Your task to perform on an android device: Open display settings Image 0: 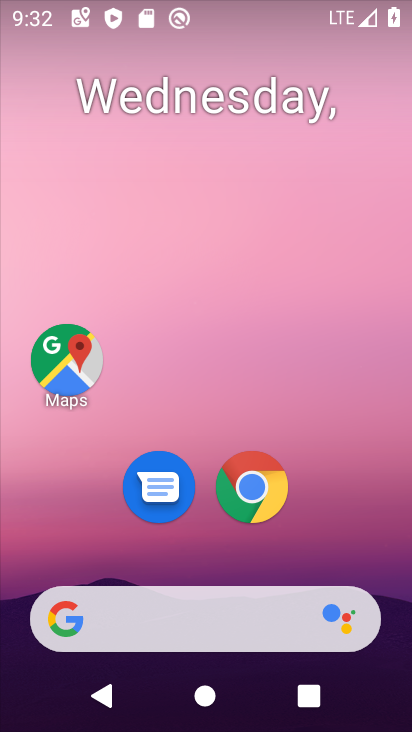
Step 0: drag from (318, 536) to (203, 85)
Your task to perform on an android device: Open display settings Image 1: 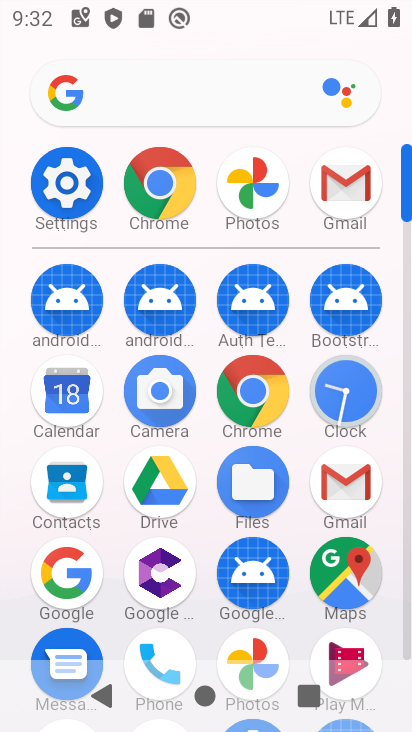
Step 1: click (69, 182)
Your task to perform on an android device: Open display settings Image 2: 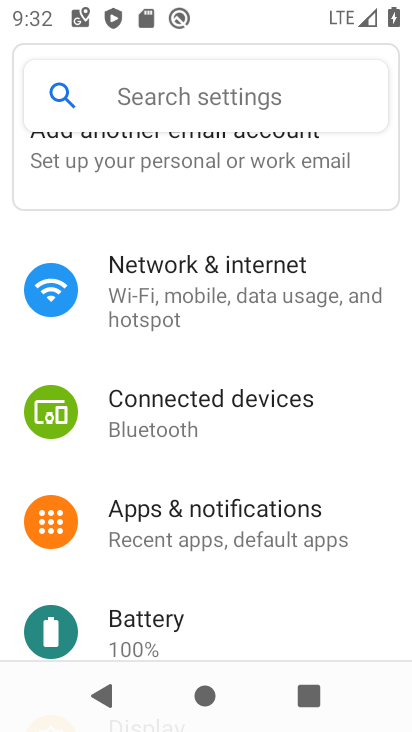
Step 2: drag from (270, 552) to (205, 298)
Your task to perform on an android device: Open display settings Image 3: 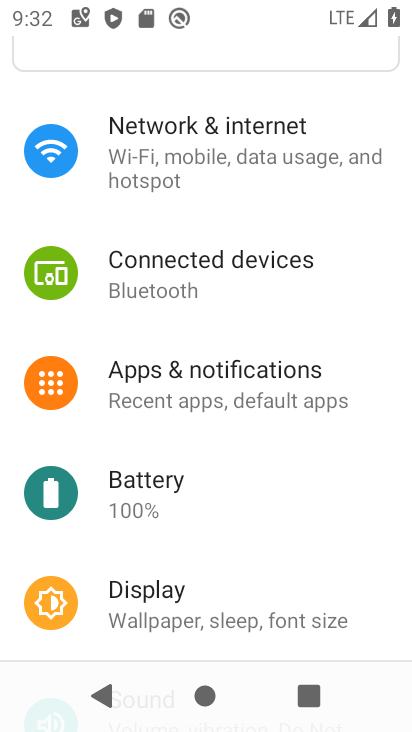
Step 3: click (147, 575)
Your task to perform on an android device: Open display settings Image 4: 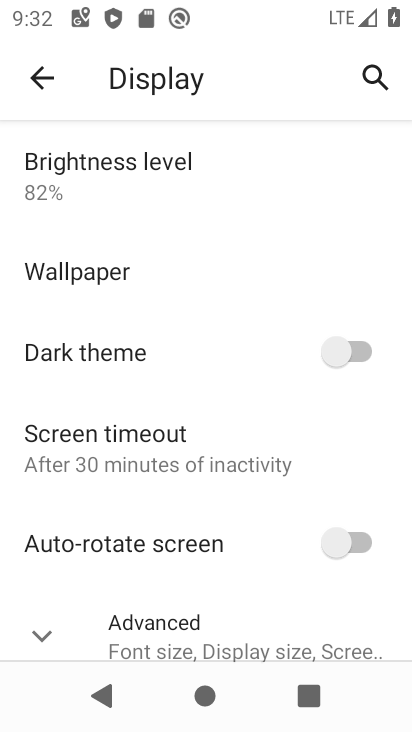
Step 4: task complete